Your task to perform on an android device: Go to Reddit.com Image 0: 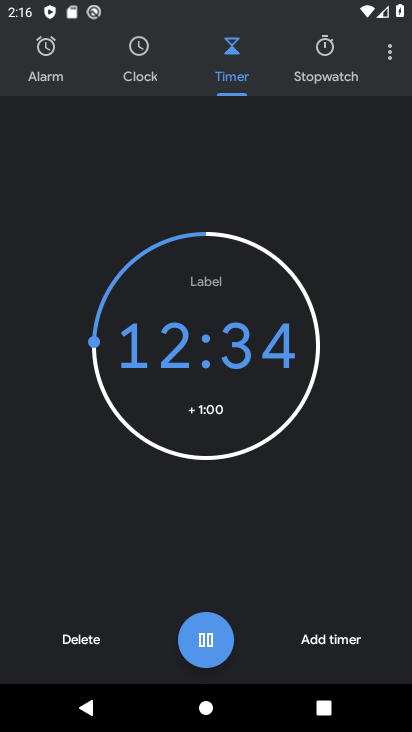
Step 0: press home button
Your task to perform on an android device: Go to Reddit.com Image 1: 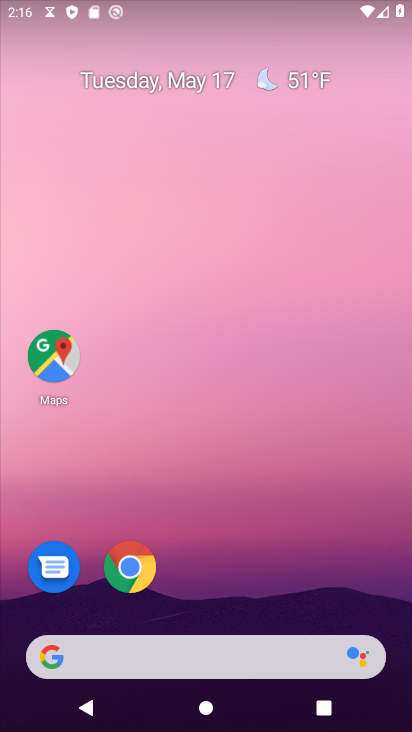
Step 1: click (137, 575)
Your task to perform on an android device: Go to Reddit.com Image 2: 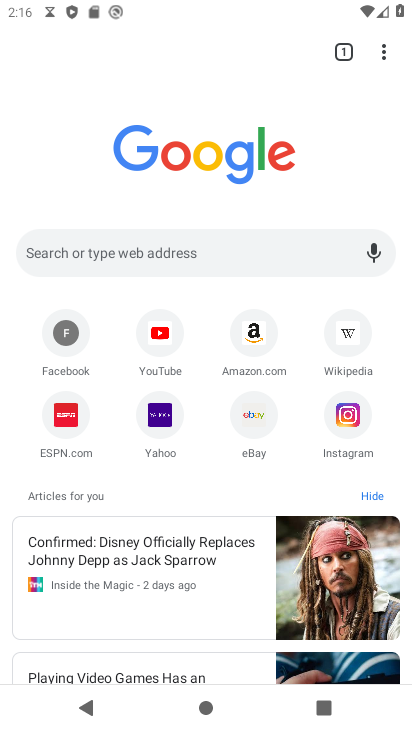
Step 2: click (142, 247)
Your task to perform on an android device: Go to Reddit.com Image 3: 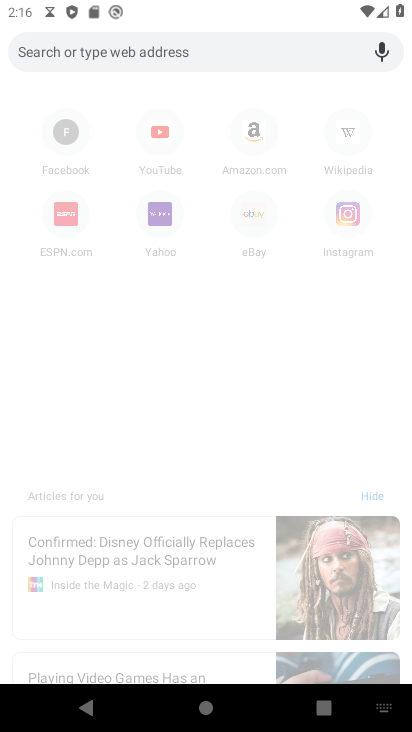
Step 3: click (145, 45)
Your task to perform on an android device: Go to Reddit.com Image 4: 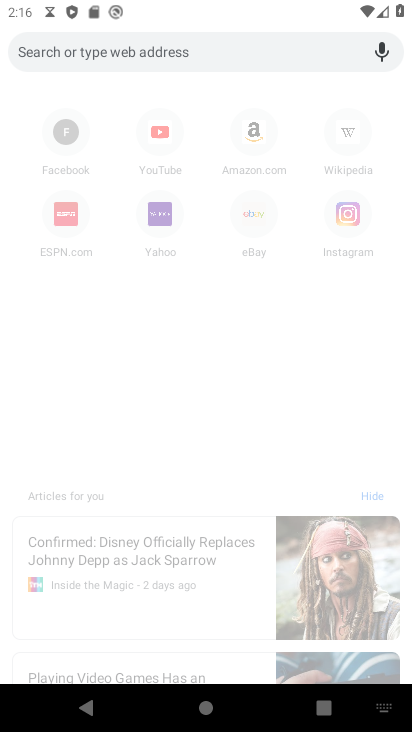
Step 4: type "reddit.com"
Your task to perform on an android device: Go to Reddit.com Image 5: 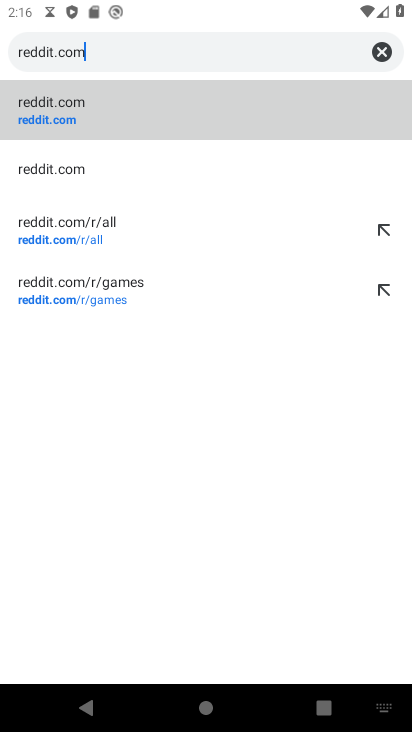
Step 5: click (66, 104)
Your task to perform on an android device: Go to Reddit.com Image 6: 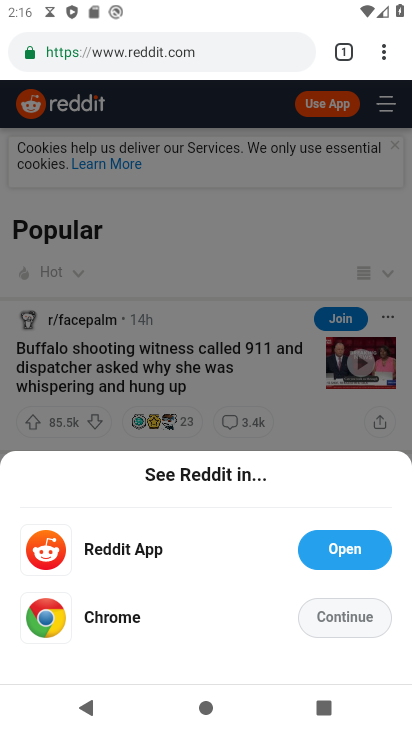
Step 6: click (330, 621)
Your task to perform on an android device: Go to Reddit.com Image 7: 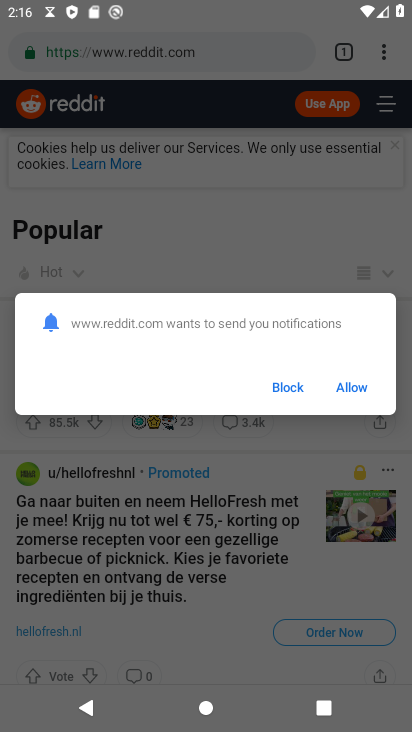
Step 7: task complete